Your task to perform on an android device: turn vacation reply on in the gmail app Image 0: 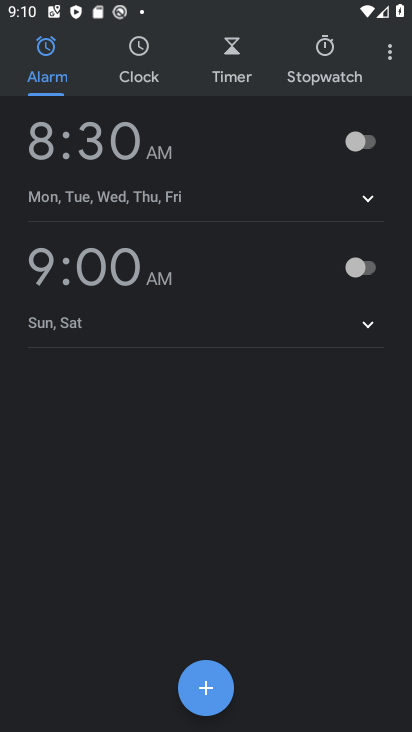
Step 0: press home button
Your task to perform on an android device: turn vacation reply on in the gmail app Image 1: 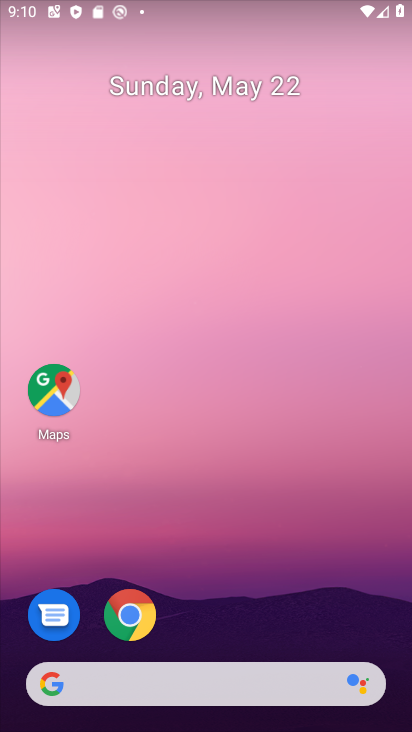
Step 1: drag from (275, 596) to (288, 302)
Your task to perform on an android device: turn vacation reply on in the gmail app Image 2: 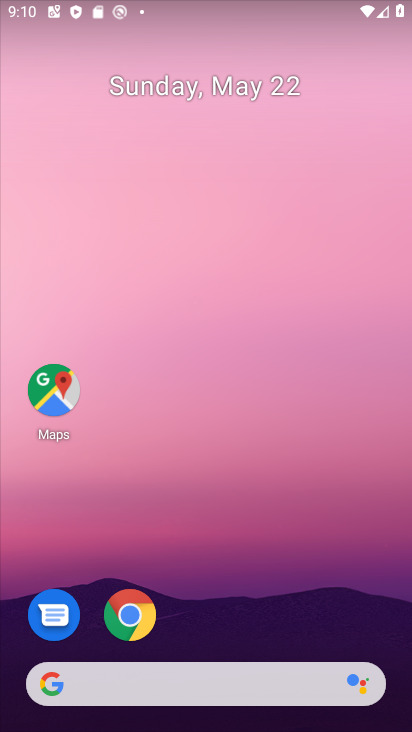
Step 2: drag from (327, 620) to (409, 212)
Your task to perform on an android device: turn vacation reply on in the gmail app Image 3: 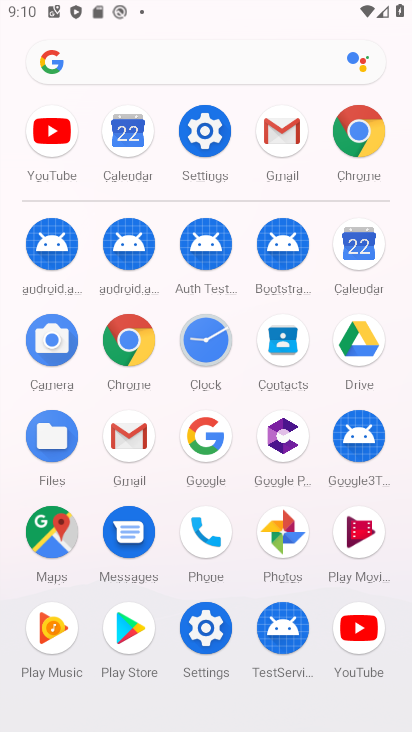
Step 3: click (278, 131)
Your task to perform on an android device: turn vacation reply on in the gmail app Image 4: 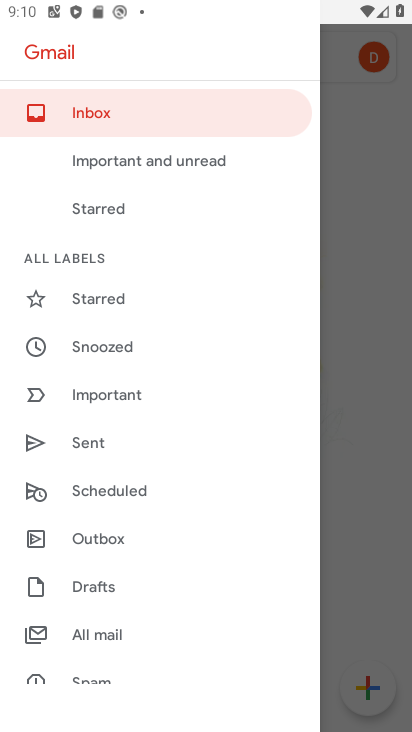
Step 4: drag from (216, 609) to (271, 134)
Your task to perform on an android device: turn vacation reply on in the gmail app Image 5: 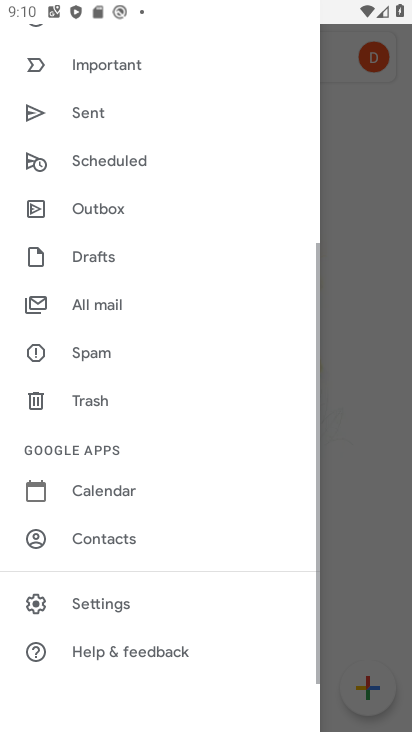
Step 5: click (119, 607)
Your task to perform on an android device: turn vacation reply on in the gmail app Image 6: 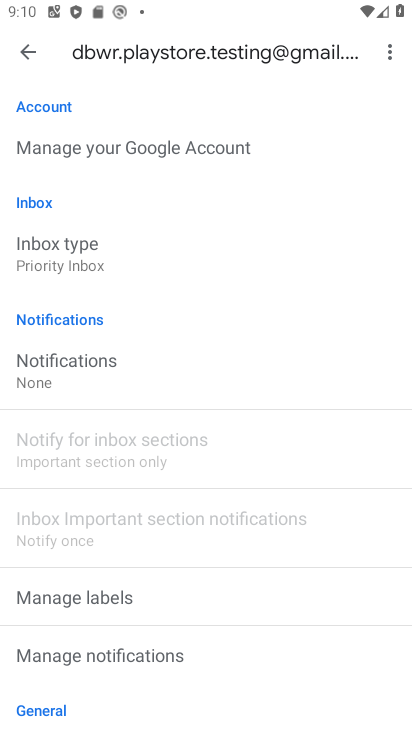
Step 6: drag from (228, 597) to (305, 241)
Your task to perform on an android device: turn vacation reply on in the gmail app Image 7: 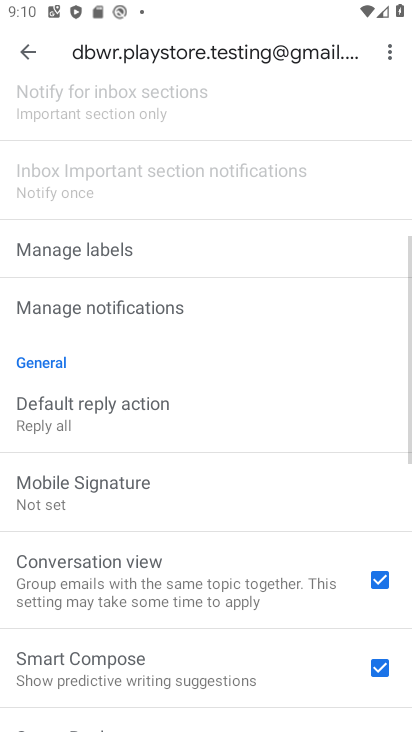
Step 7: drag from (213, 521) to (235, 263)
Your task to perform on an android device: turn vacation reply on in the gmail app Image 8: 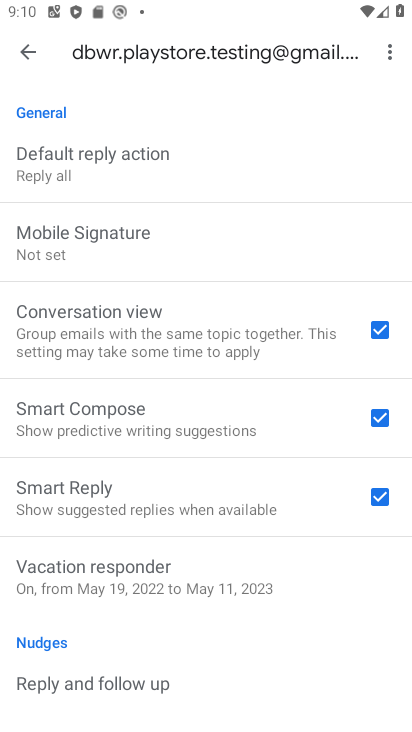
Step 8: drag from (142, 572) to (187, 291)
Your task to perform on an android device: turn vacation reply on in the gmail app Image 9: 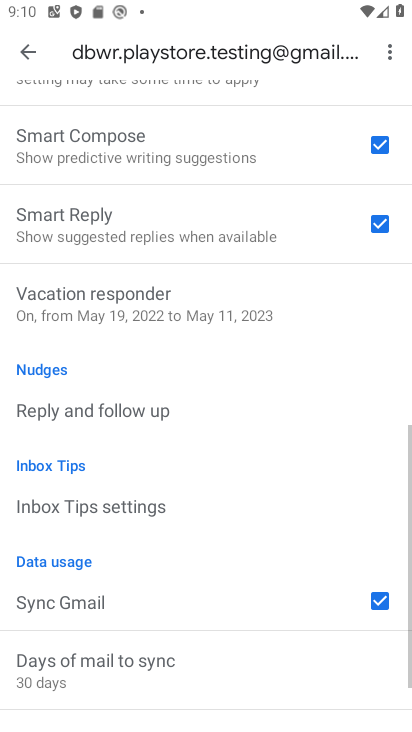
Step 9: click (164, 306)
Your task to perform on an android device: turn vacation reply on in the gmail app Image 10: 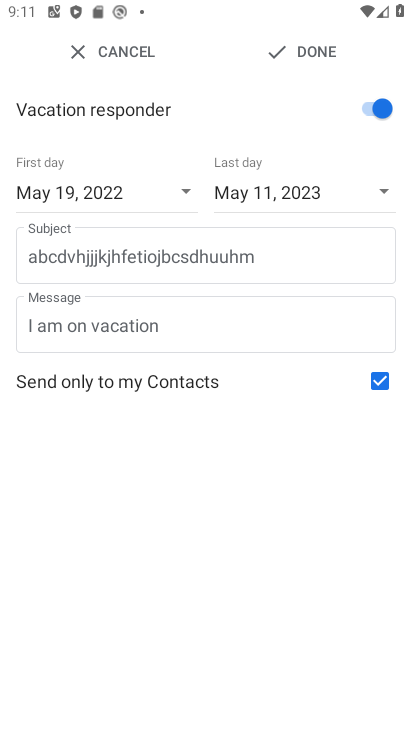
Step 10: task complete